Your task to perform on an android device: Check the news Image 0: 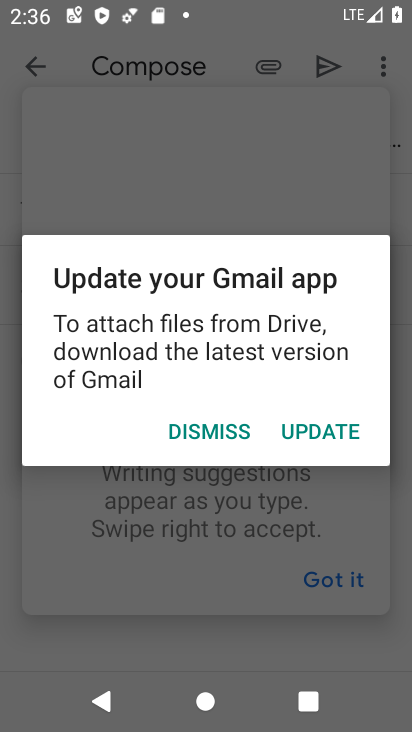
Step 0: press home button
Your task to perform on an android device: Check the news Image 1: 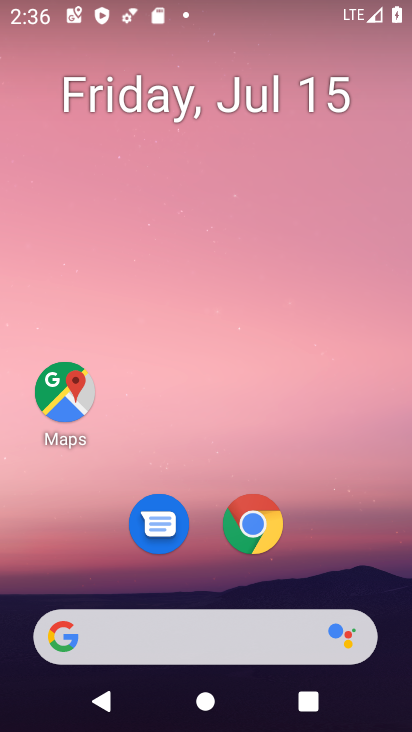
Step 1: click (193, 641)
Your task to perform on an android device: Check the news Image 2: 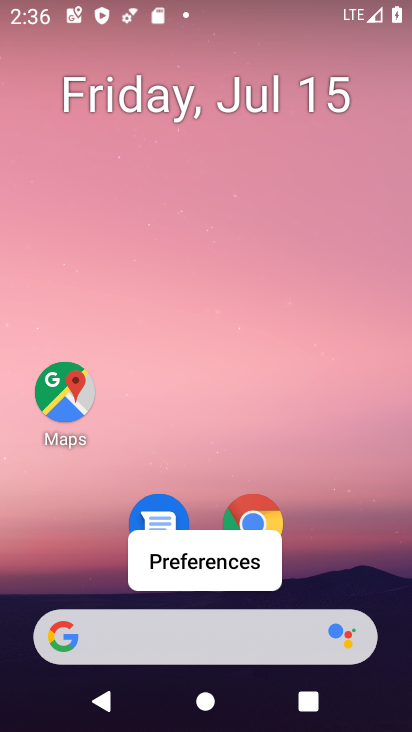
Step 2: click (182, 642)
Your task to perform on an android device: Check the news Image 3: 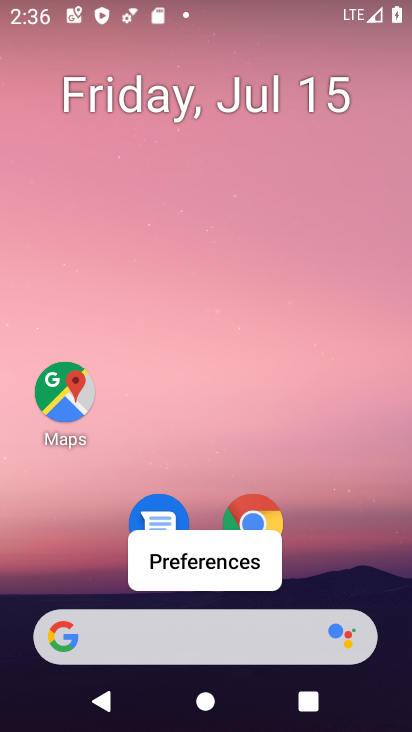
Step 3: click (163, 630)
Your task to perform on an android device: Check the news Image 4: 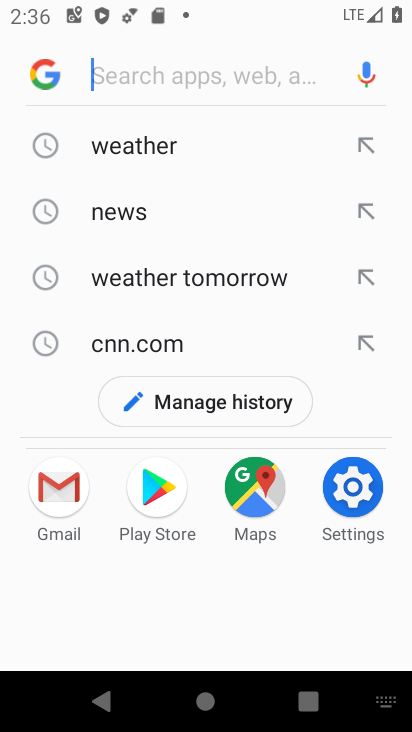
Step 4: click (128, 214)
Your task to perform on an android device: Check the news Image 5: 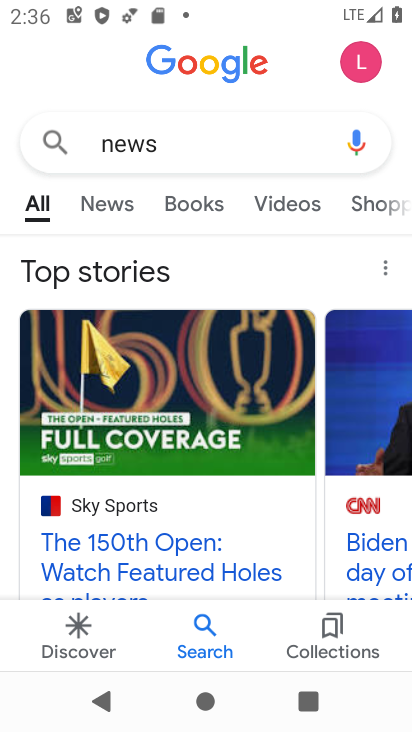
Step 5: click (125, 211)
Your task to perform on an android device: Check the news Image 6: 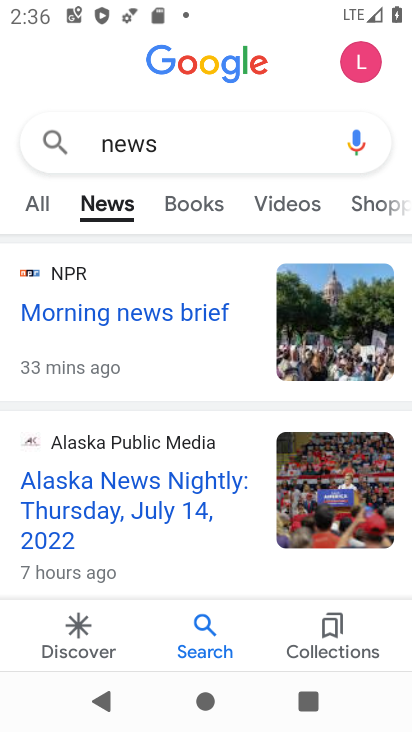
Step 6: task complete